Your task to perform on an android device: search for starred emails in the gmail app Image 0: 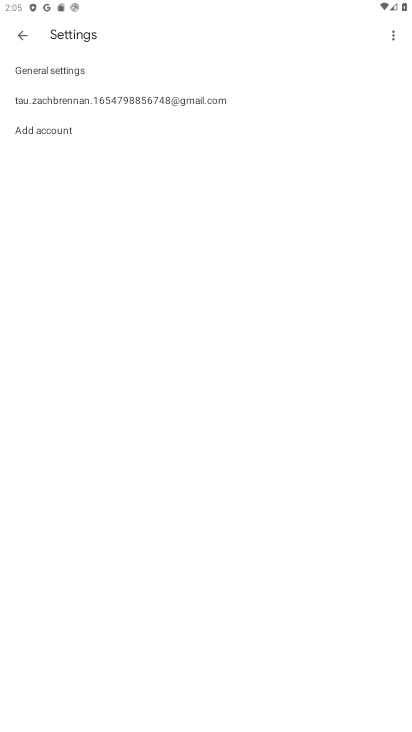
Step 0: press home button
Your task to perform on an android device: search for starred emails in the gmail app Image 1: 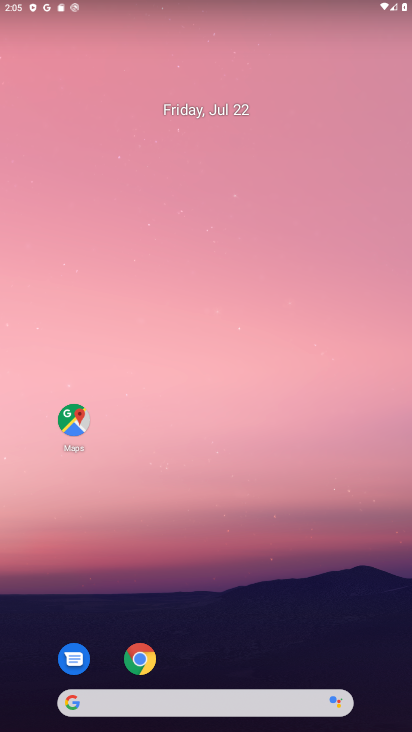
Step 1: drag from (174, 636) to (177, 166)
Your task to perform on an android device: search for starred emails in the gmail app Image 2: 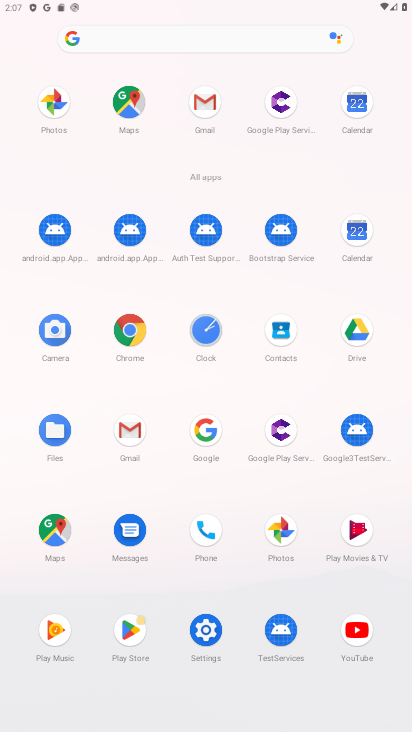
Step 2: click (129, 444)
Your task to perform on an android device: search for starred emails in the gmail app Image 3: 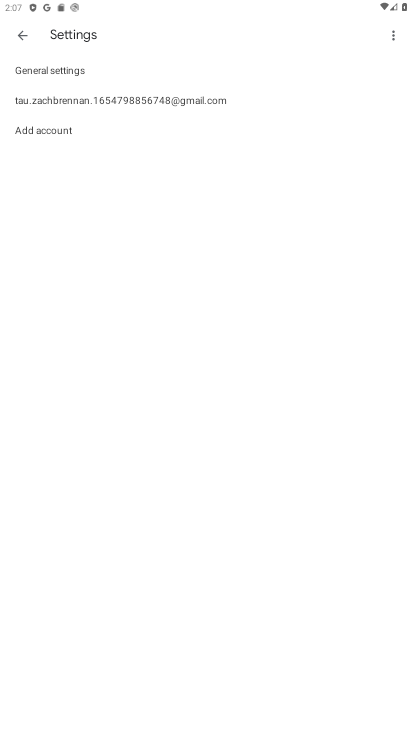
Step 3: click (19, 34)
Your task to perform on an android device: search for starred emails in the gmail app Image 4: 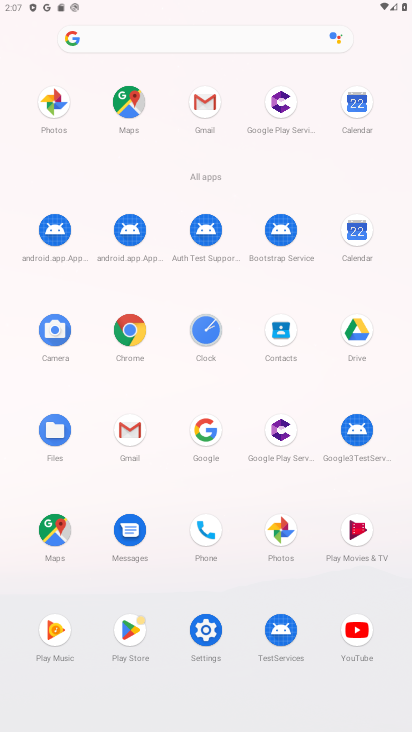
Step 4: click (212, 113)
Your task to perform on an android device: search for starred emails in the gmail app Image 5: 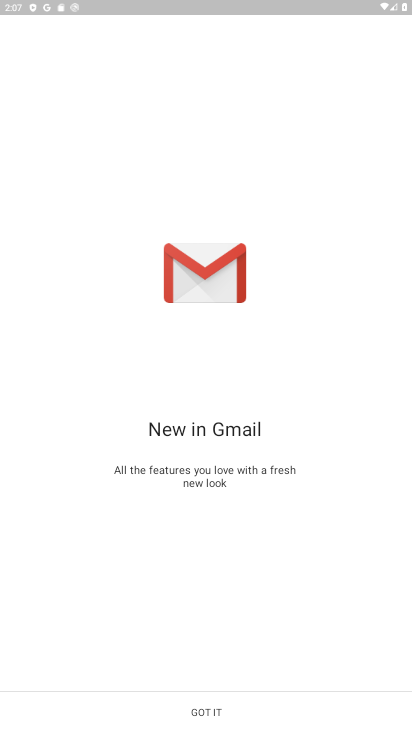
Step 5: click (206, 714)
Your task to perform on an android device: search for starred emails in the gmail app Image 6: 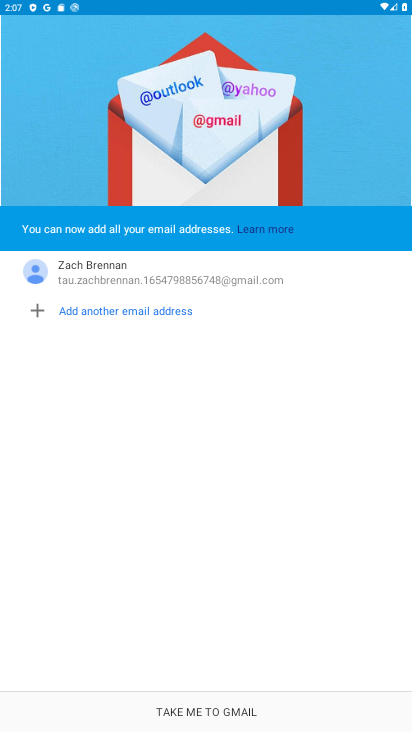
Step 6: click (206, 714)
Your task to perform on an android device: search for starred emails in the gmail app Image 7: 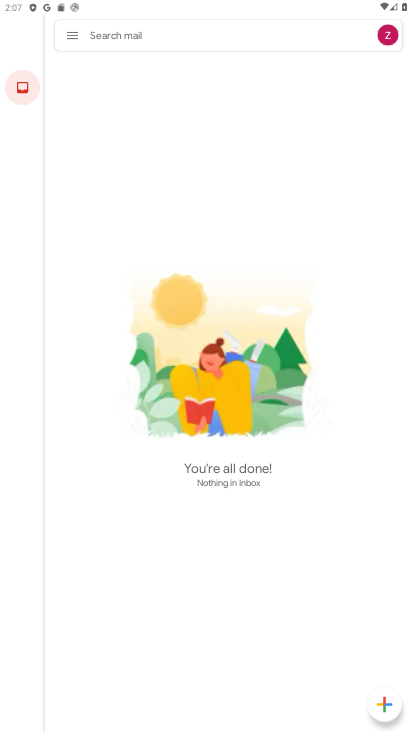
Step 7: click (69, 33)
Your task to perform on an android device: search for starred emails in the gmail app Image 8: 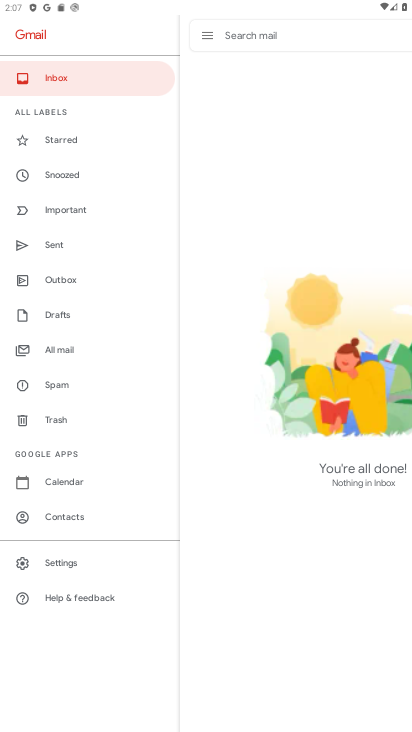
Step 8: click (65, 144)
Your task to perform on an android device: search for starred emails in the gmail app Image 9: 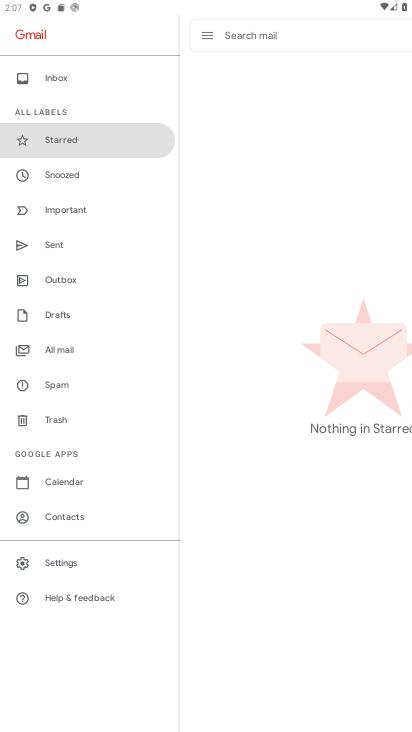
Step 9: task complete